Your task to perform on an android device: open the mobile data screen to see how much data has been used Image 0: 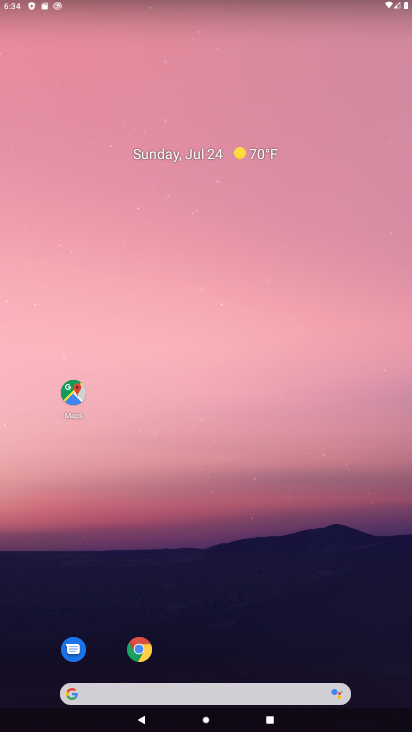
Step 0: drag from (255, 575) to (186, 27)
Your task to perform on an android device: open the mobile data screen to see how much data has been used Image 1: 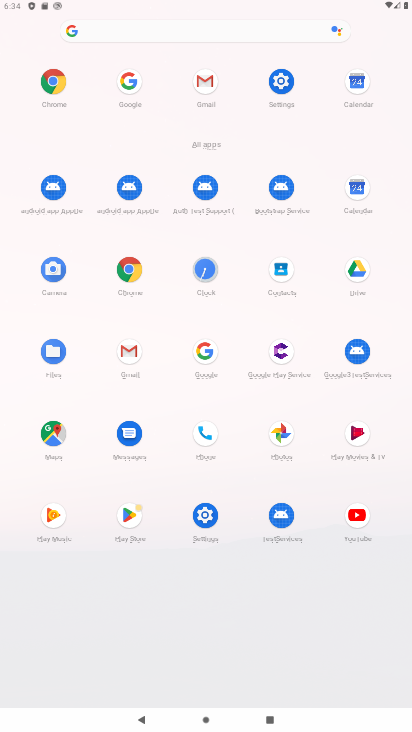
Step 1: click (281, 83)
Your task to perform on an android device: open the mobile data screen to see how much data has been used Image 2: 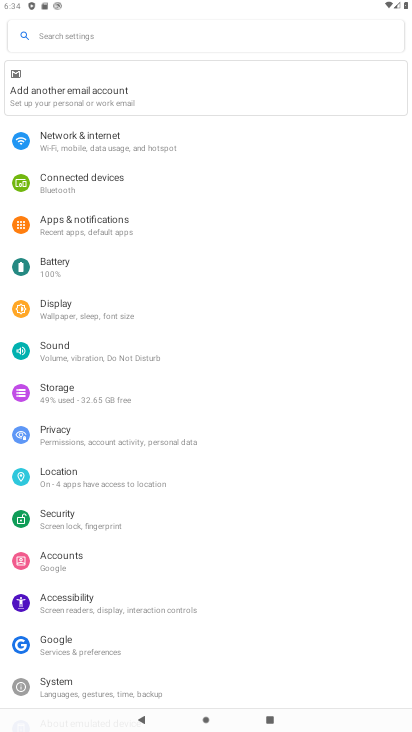
Step 2: click (60, 135)
Your task to perform on an android device: open the mobile data screen to see how much data has been used Image 3: 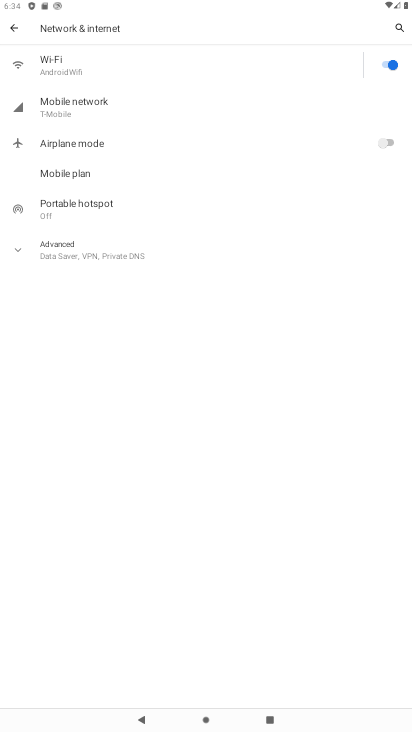
Step 3: click (76, 94)
Your task to perform on an android device: open the mobile data screen to see how much data has been used Image 4: 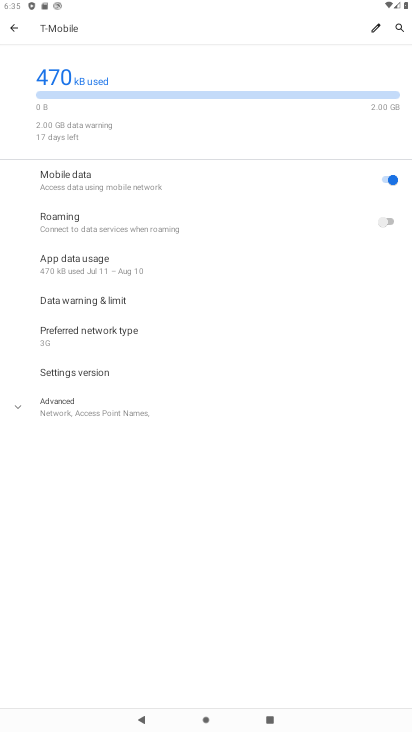
Step 4: task complete